Your task to perform on an android device: toggle improve location accuracy Image 0: 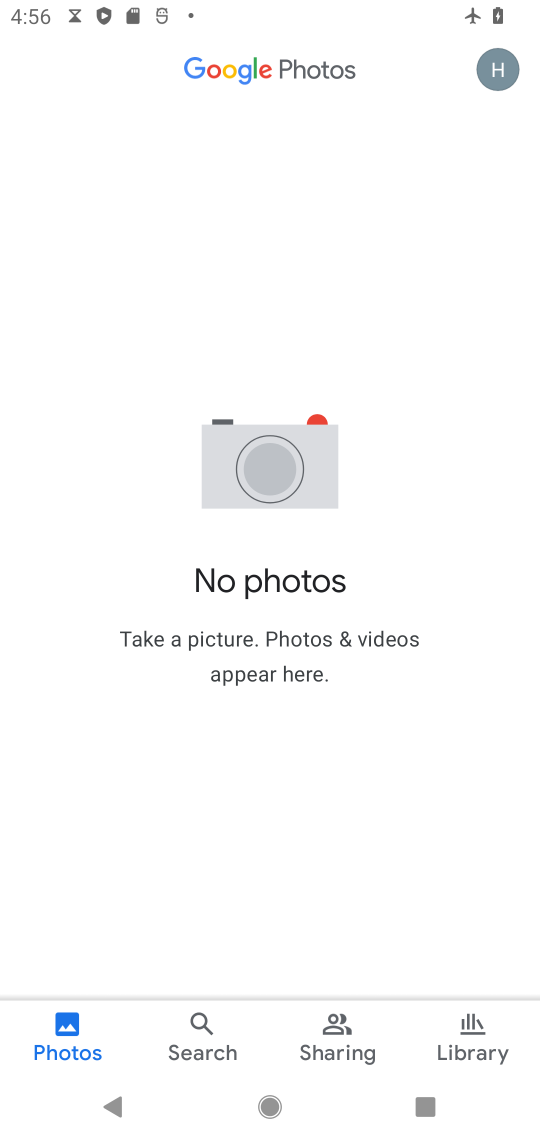
Step 0: press home button
Your task to perform on an android device: toggle improve location accuracy Image 1: 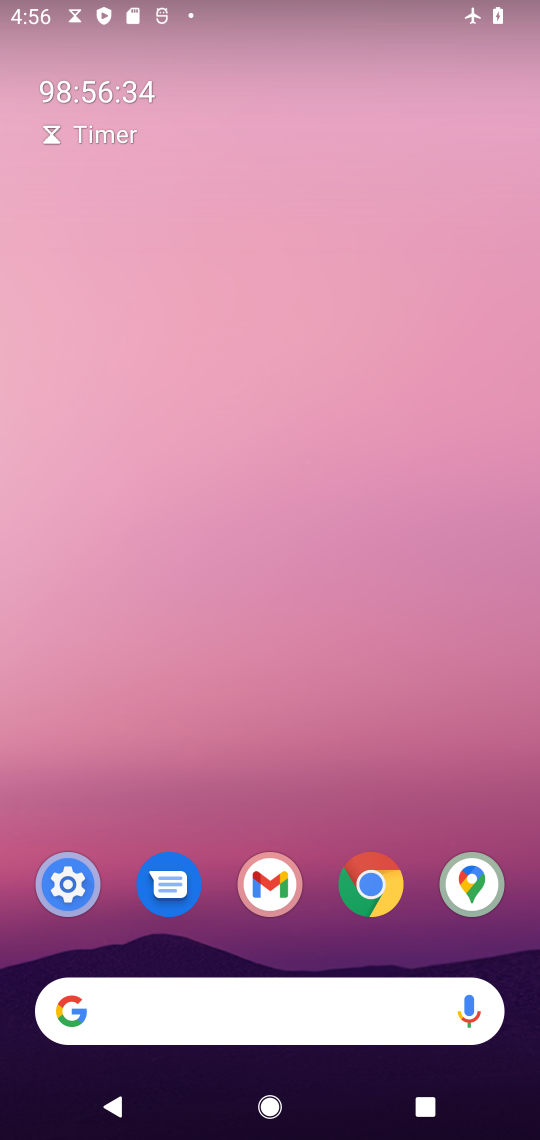
Step 1: drag from (322, 887) to (330, 232)
Your task to perform on an android device: toggle improve location accuracy Image 2: 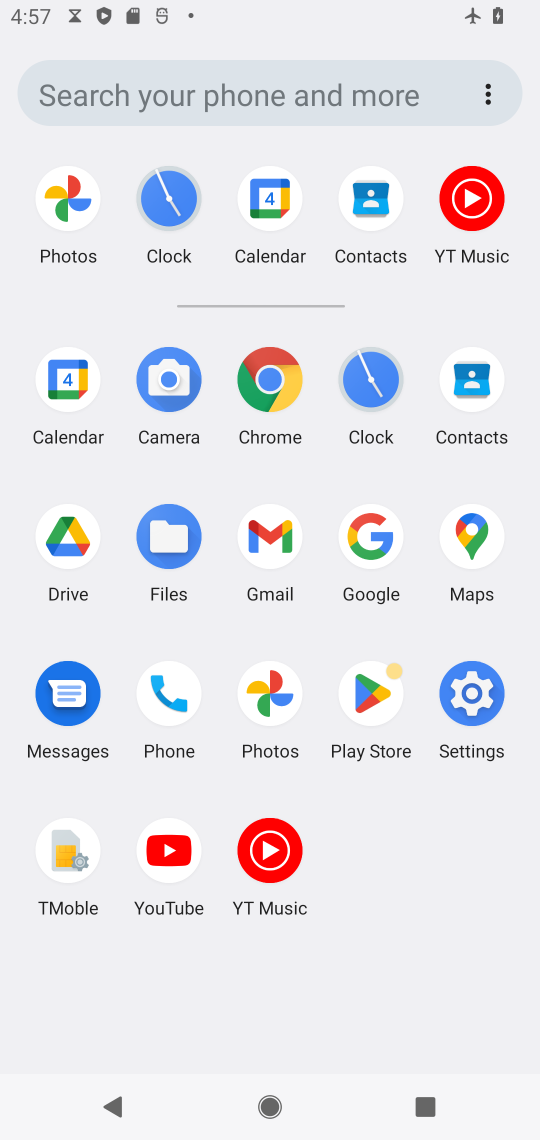
Step 2: click (452, 697)
Your task to perform on an android device: toggle improve location accuracy Image 3: 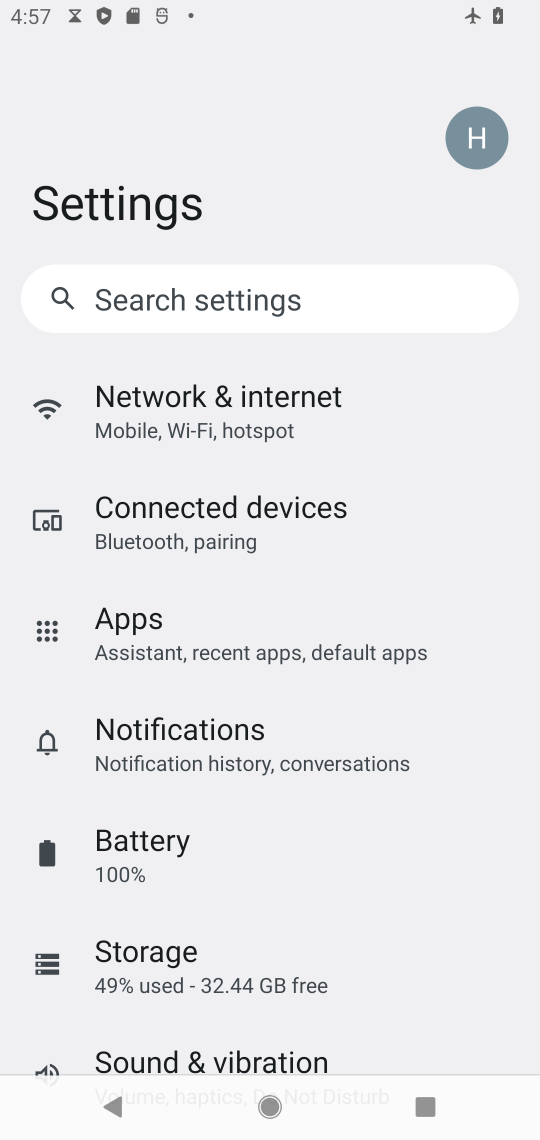
Step 3: drag from (257, 967) to (461, 472)
Your task to perform on an android device: toggle improve location accuracy Image 4: 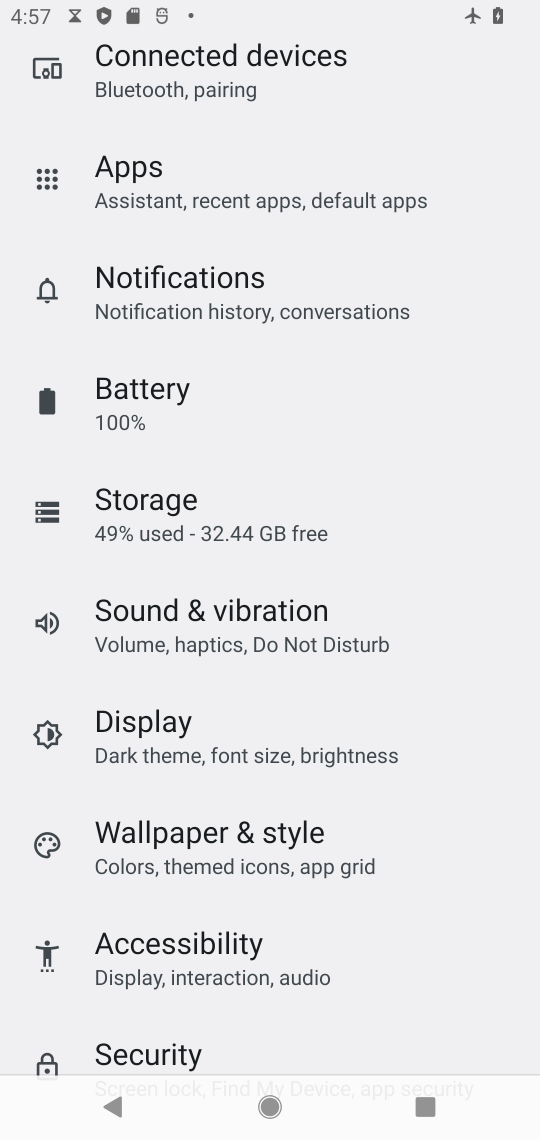
Step 4: drag from (191, 986) to (299, 261)
Your task to perform on an android device: toggle improve location accuracy Image 5: 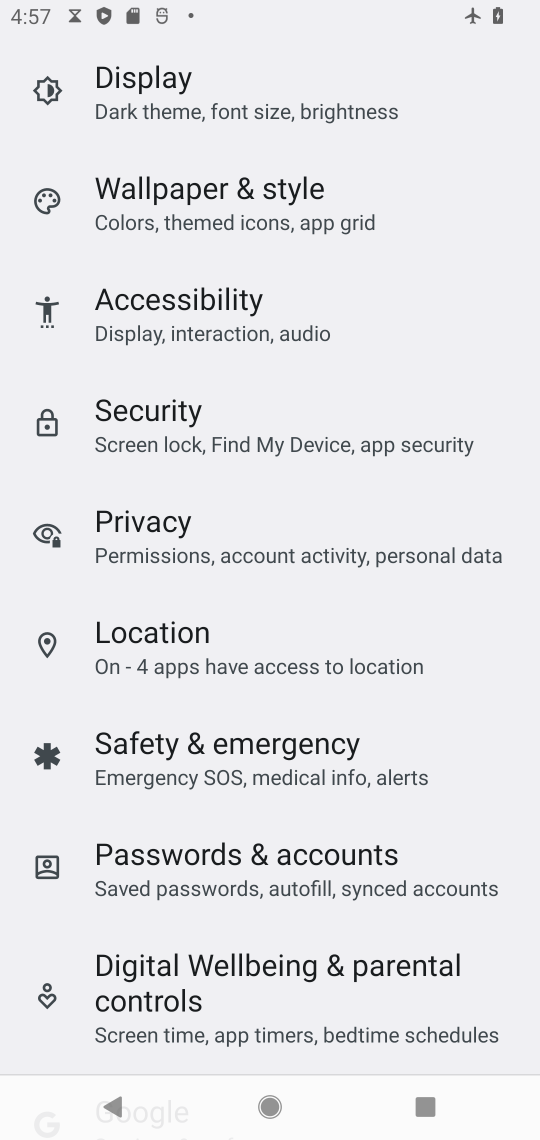
Step 5: click (143, 647)
Your task to perform on an android device: toggle improve location accuracy Image 6: 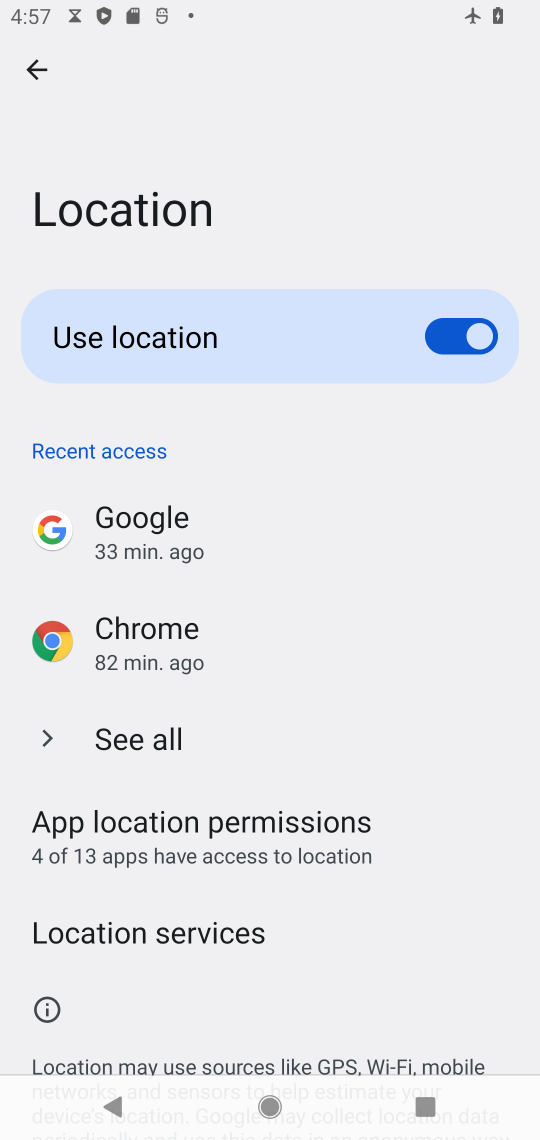
Step 6: drag from (158, 904) to (228, 190)
Your task to perform on an android device: toggle improve location accuracy Image 7: 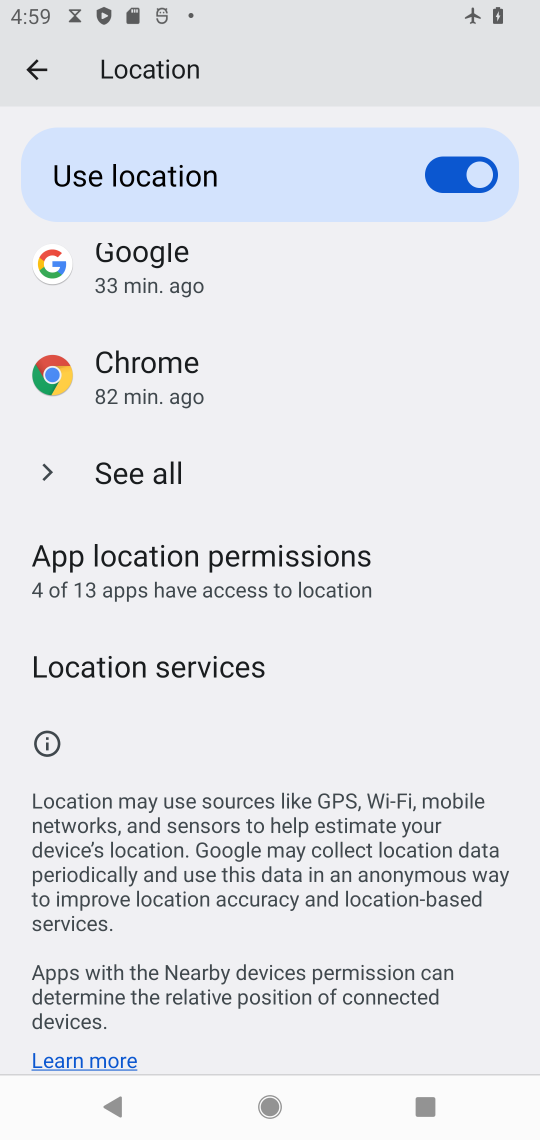
Step 7: click (146, 657)
Your task to perform on an android device: toggle improve location accuracy Image 8: 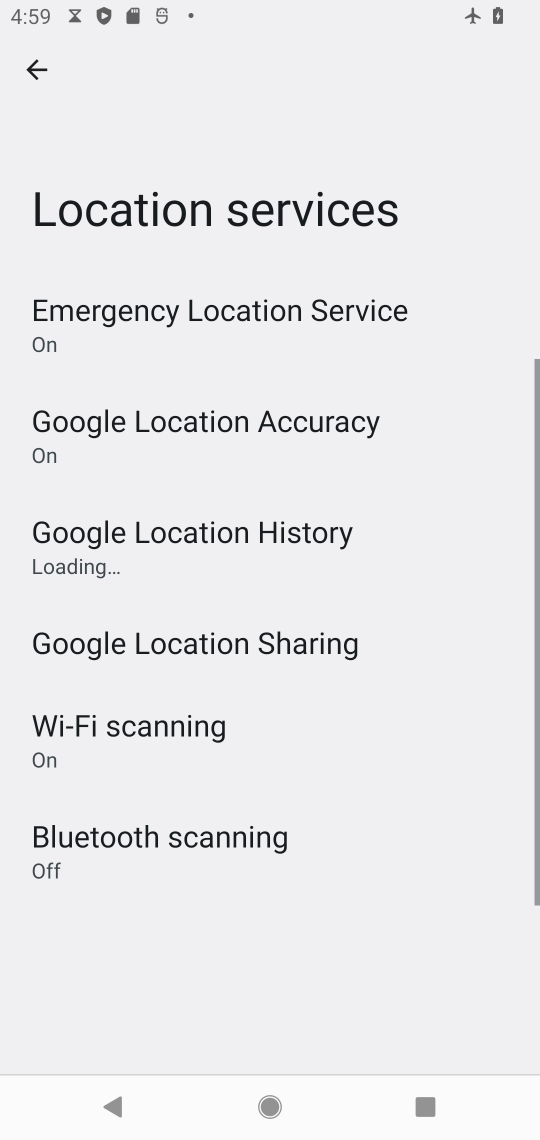
Step 8: click (319, 425)
Your task to perform on an android device: toggle improve location accuracy Image 9: 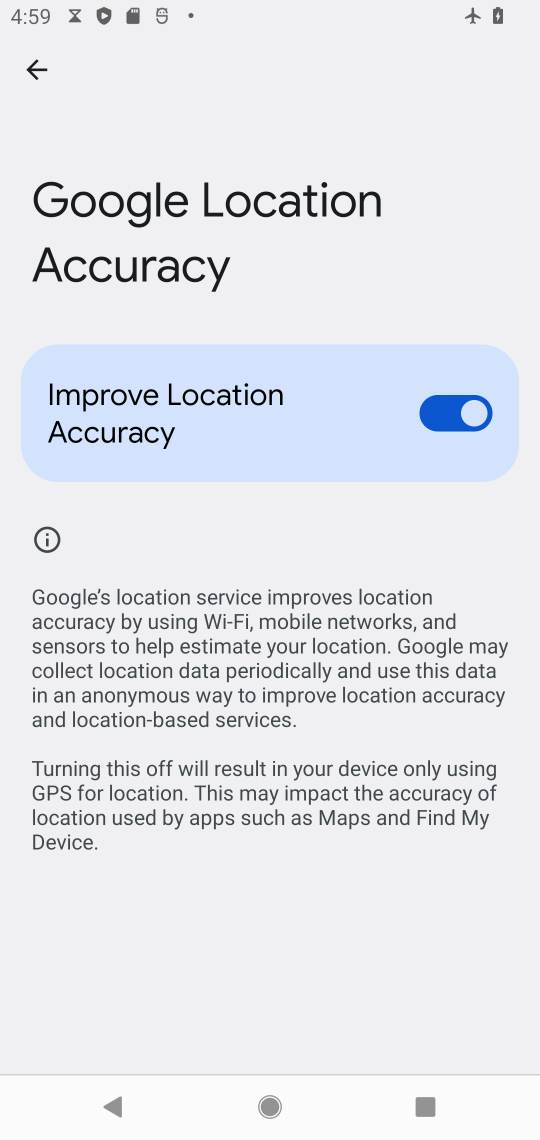
Step 9: click (434, 398)
Your task to perform on an android device: toggle improve location accuracy Image 10: 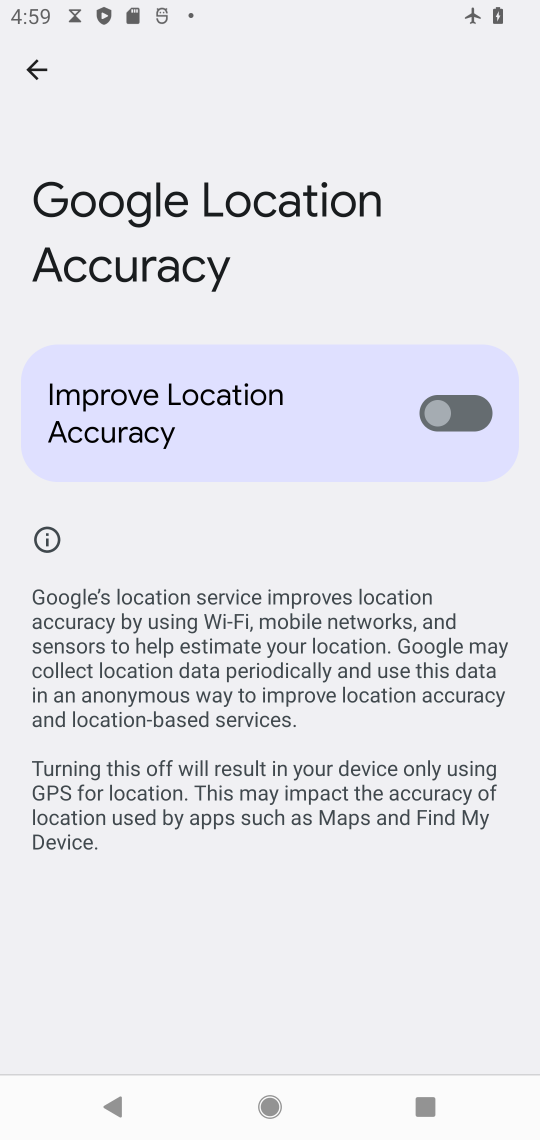
Step 10: task complete